Your task to perform on an android device: create a new album in the google photos Image 0: 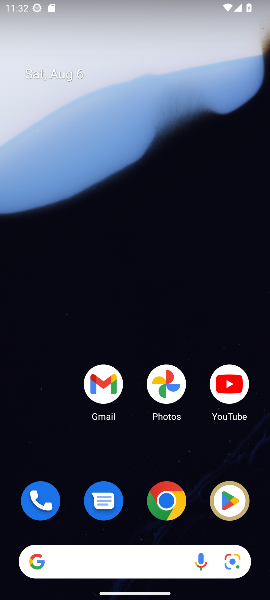
Step 0: drag from (134, 519) to (150, 81)
Your task to perform on an android device: create a new album in the google photos Image 1: 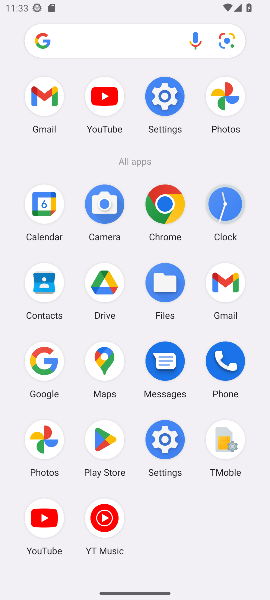
Step 1: click (42, 442)
Your task to perform on an android device: create a new album in the google photos Image 2: 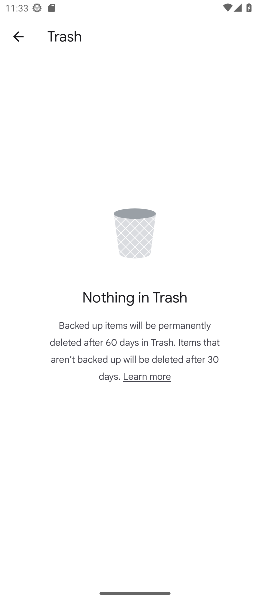
Step 2: click (14, 39)
Your task to perform on an android device: create a new album in the google photos Image 3: 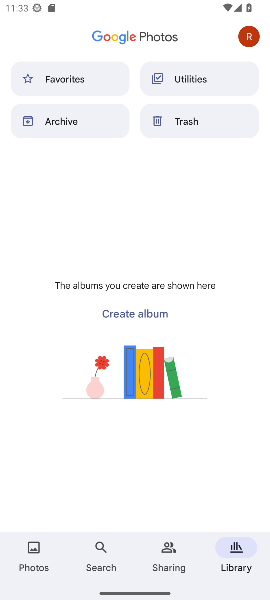
Step 3: click (29, 564)
Your task to perform on an android device: create a new album in the google photos Image 4: 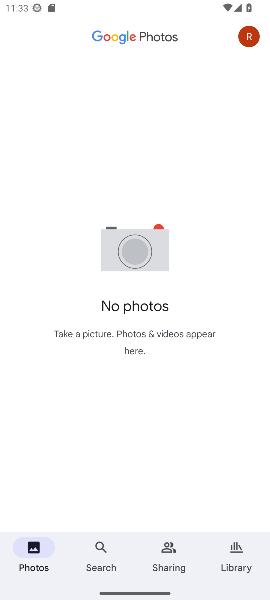
Step 4: click (233, 555)
Your task to perform on an android device: create a new album in the google photos Image 5: 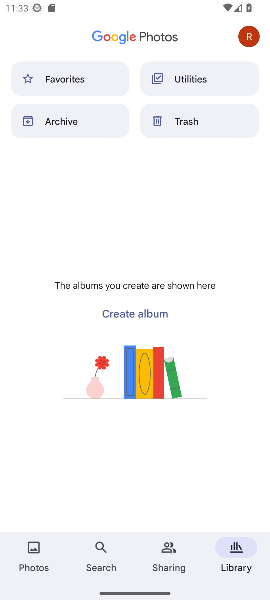
Step 5: click (156, 305)
Your task to perform on an android device: create a new album in the google photos Image 6: 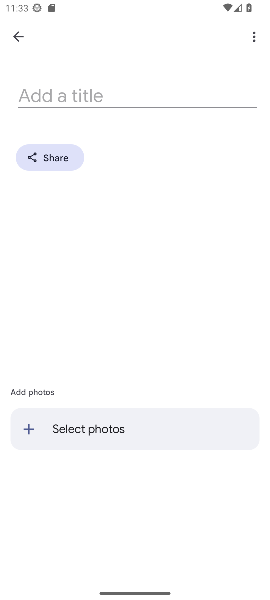
Step 6: click (92, 425)
Your task to perform on an android device: create a new album in the google photos Image 7: 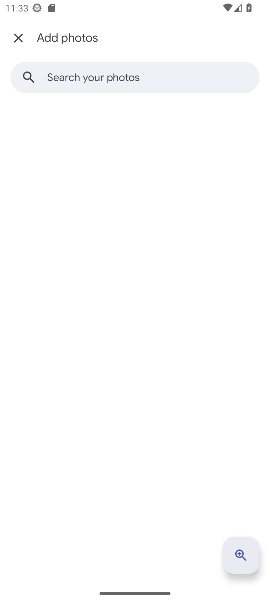
Step 7: task complete